Your task to perform on an android device: Go to display settings Image 0: 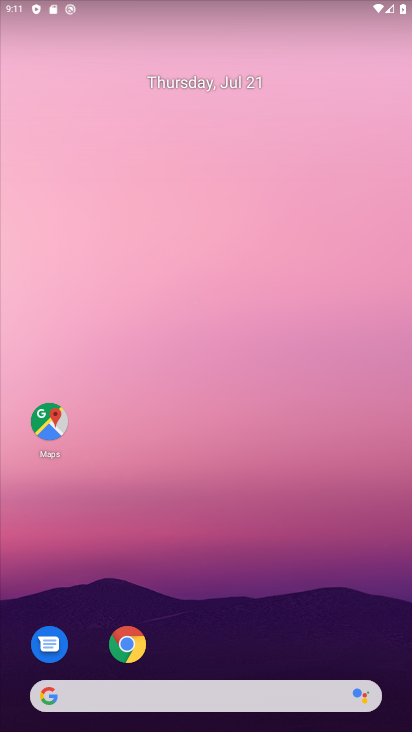
Step 0: drag from (192, 655) to (215, 84)
Your task to perform on an android device: Go to display settings Image 1: 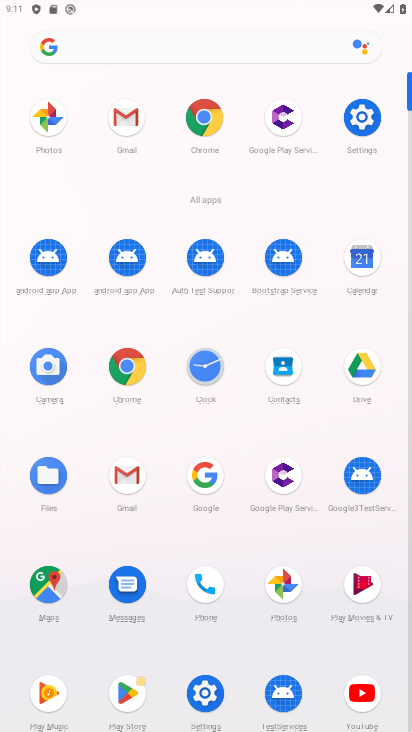
Step 1: click (362, 120)
Your task to perform on an android device: Go to display settings Image 2: 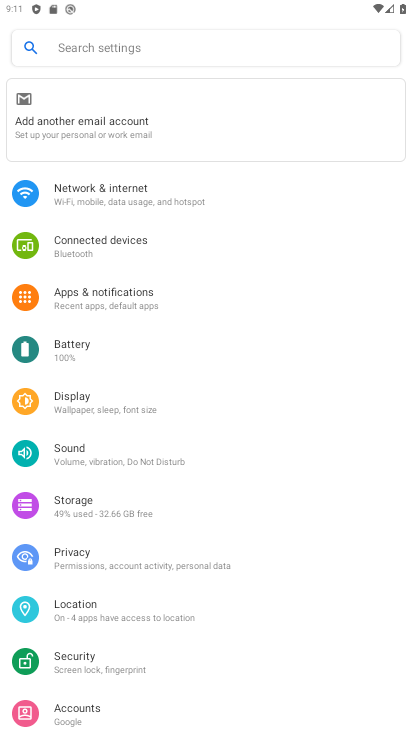
Step 2: click (94, 397)
Your task to perform on an android device: Go to display settings Image 3: 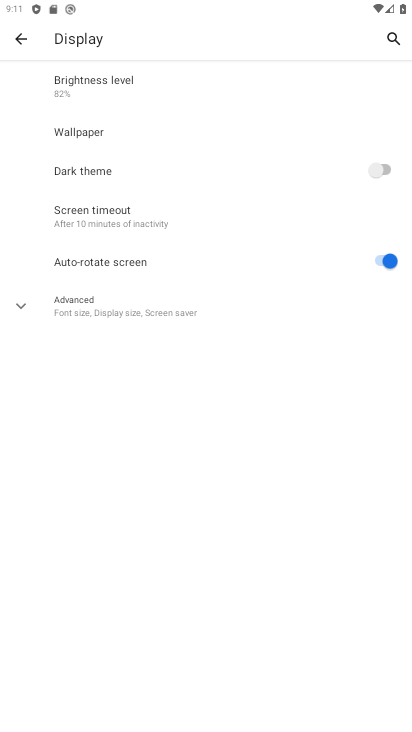
Step 3: task complete